Your task to perform on an android device: turn vacation reply on in the gmail app Image 0: 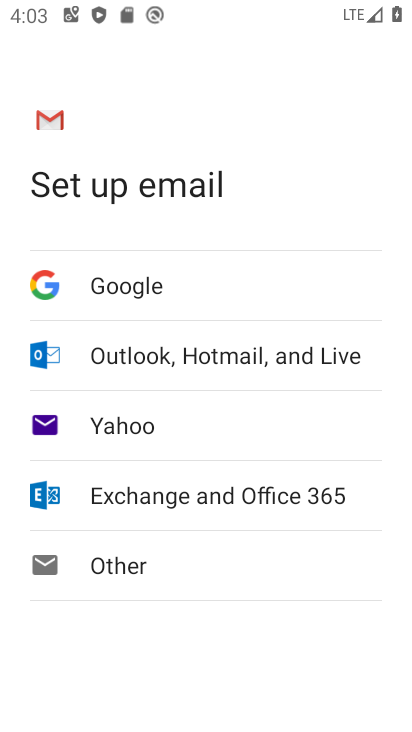
Step 0: press home button
Your task to perform on an android device: turn vacation reply on in the gmail app Image 1: 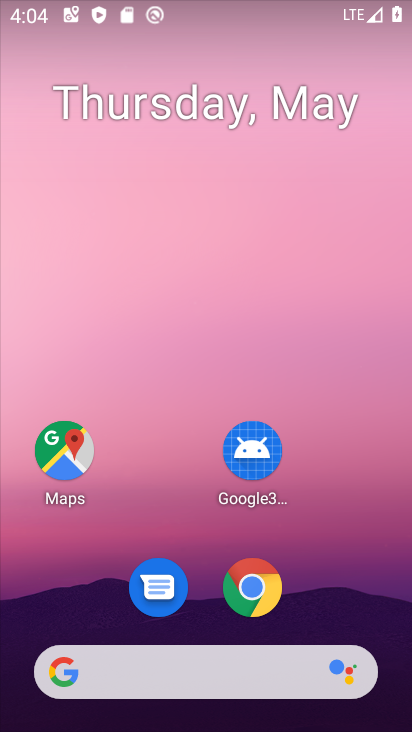
Step 1: drag from (322, 511) to (274, 5)
Your task to perform on an android device: turn vacation reply on in the gmail app Image 2: 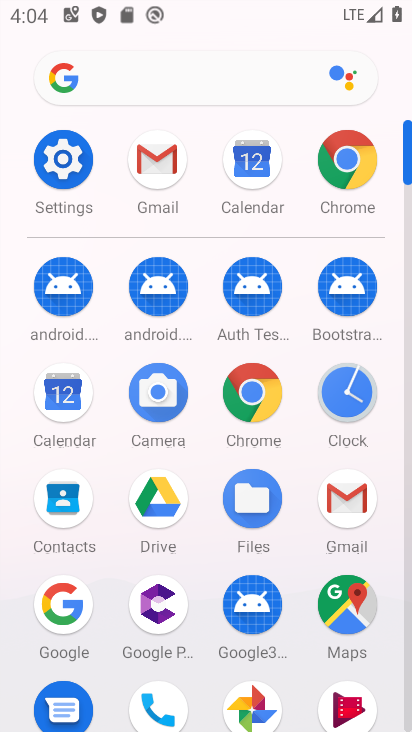
Step 2: click (353, 512)
Your task to perform on an android device: turn vacation reply on in the gmail app Image 3: 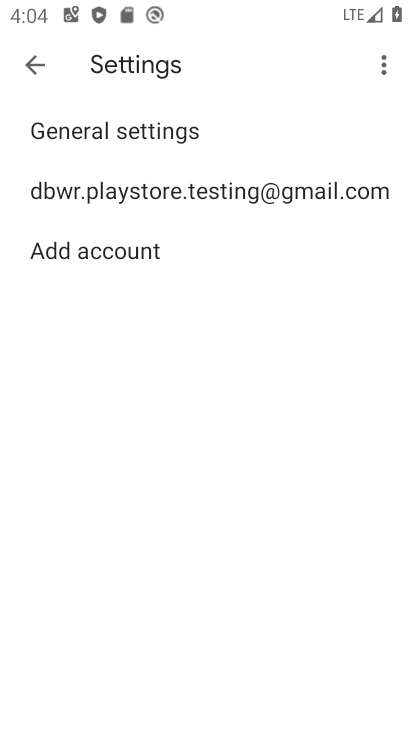
Step 3: click (119, 180)
Your task to perform on an android device: turn vacation reply on in the gmail app Image 4: 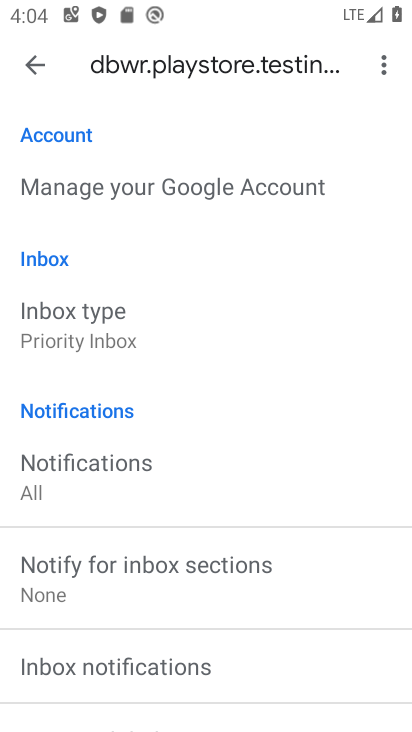
Step 4: drag from (157, 567) to (103, 2)
Your task to perform on an android device: turn vacation reply on in the gmail app Image 5: 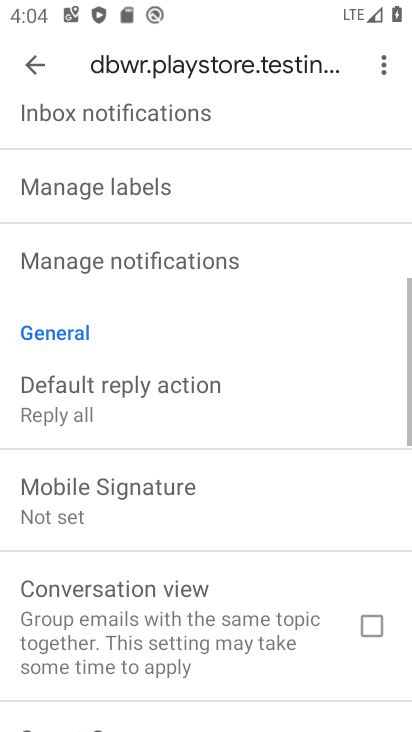
Step 5: drag from (194, 457) to (239, 21)
Your task to perform on an android device: turn vacation reply on in the gmail app Image 6: 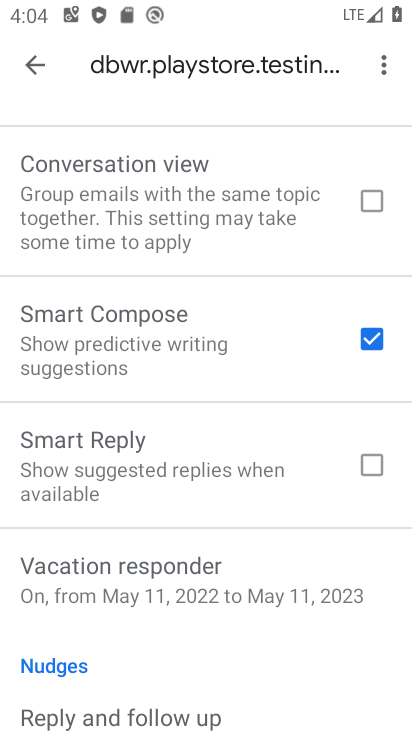
Step 6: drag from (157, 513) to (196, 242)
Your task to perform on an android device: turn vacation reply on in the gmail app Image 7: 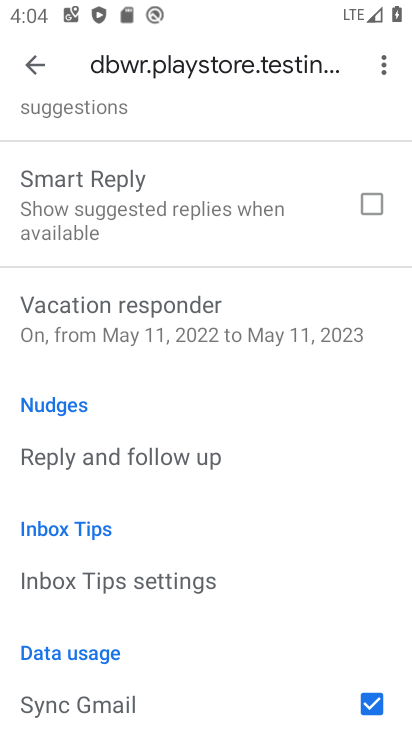
Step 7: click (243, 348)
Your task to perform on an android device: turn vacation reply on in the gmail app Image 8: 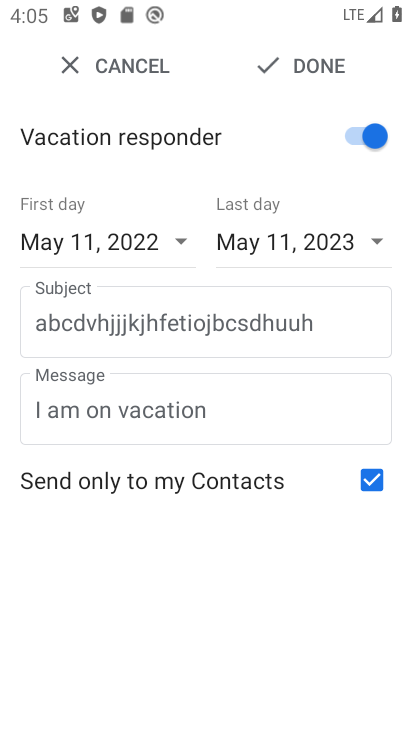
Step 8: task complete